Your task to perform on an android device: Is it going to rain tomorrow? Image 0: 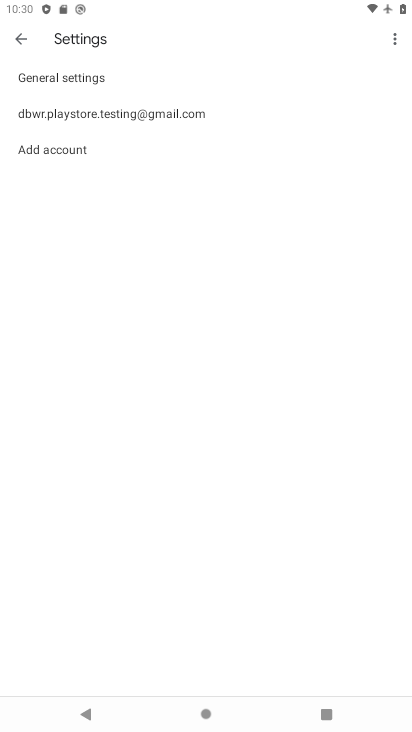
Step 0: press home button
Your task to perform on an android device: Is it going to rain tomorrow? Image 1: 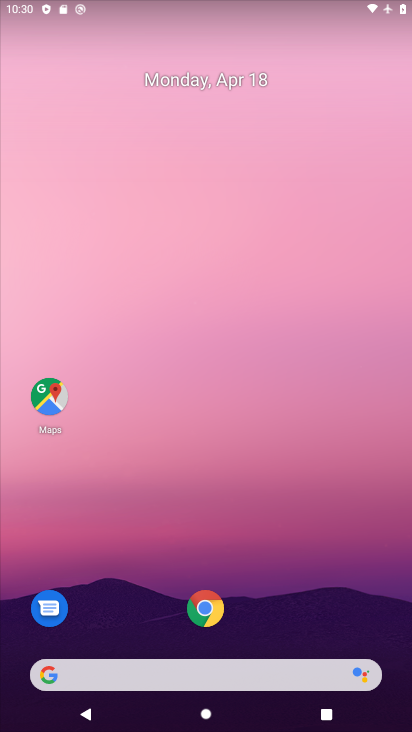
Step 1: click (208, 598)
Your task to perform on an android device: Is it going to rain tomorrow? Image 2: 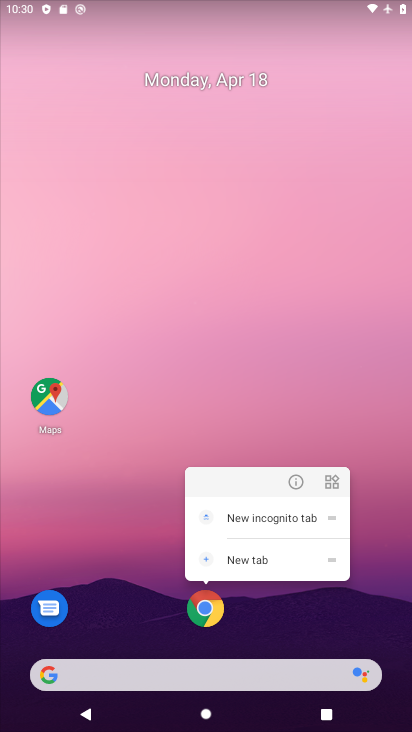
Step 2: click (215, 618)
Your task to perform on an android device: Is it going to rain tomorrow? Image 3: 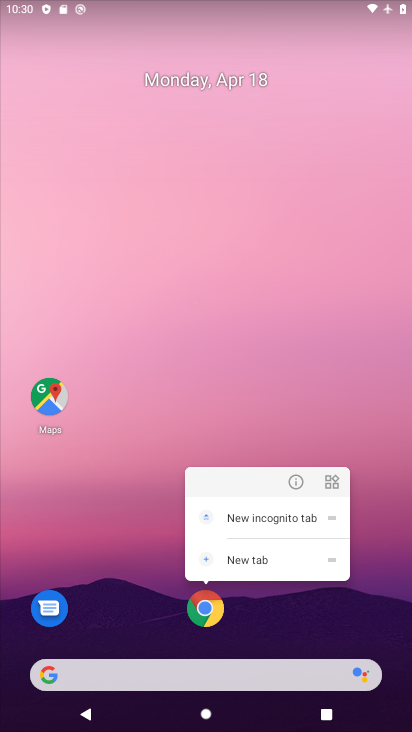
Step 3: click (194, 614)
Your task to perform on an android device: Is it going to rain tomorrow? Image 4: 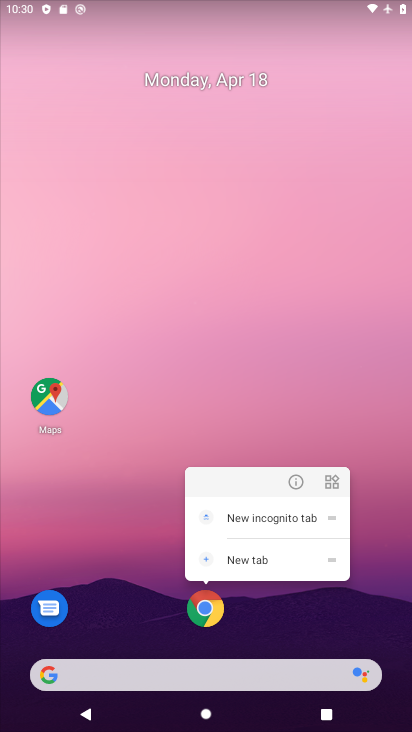
Step 4: click (204, 622)
Your task to perform on an android device: Is it going to rain tomorrow? Image 5: 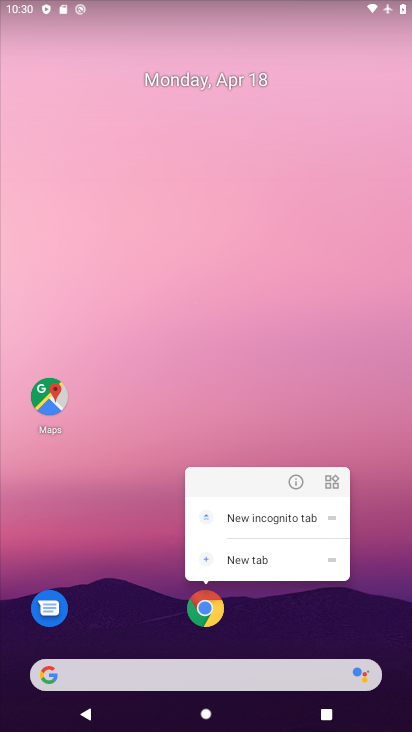
Step 5: click (204, 622)
Your task to perform on an android device: Is it going to rain tomorrow? Image 6: 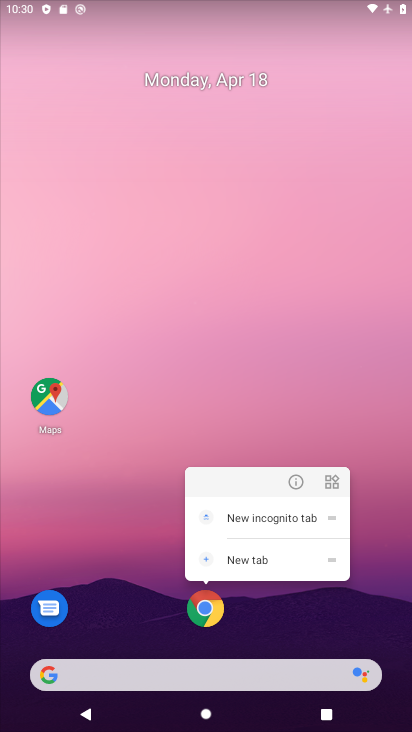
Step 6: click (218, 617)
Your task to perform on an android device: Is it going to rain tomorrow? Image 7: 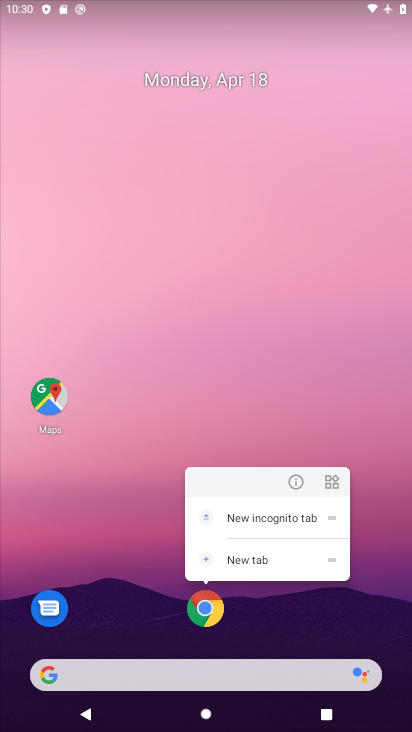
Step 7: click (210, 617)
Your task to perform on an android device: Is it going to rain tomorrow? Image 8: 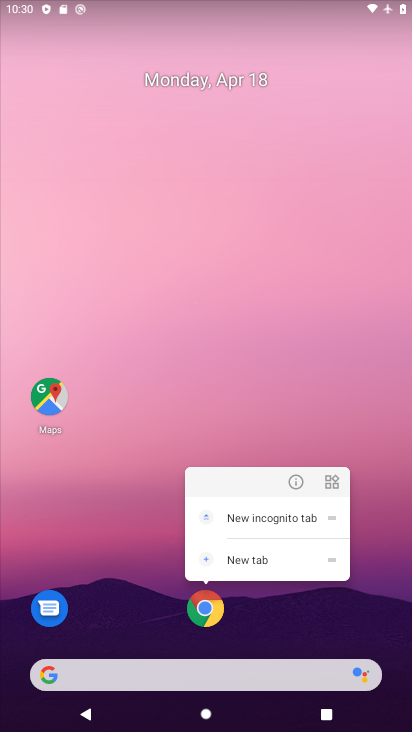
Step 8: click (210, 617)
Your task to perform on an android device: Is it going to rain tomorrow? Image 9: 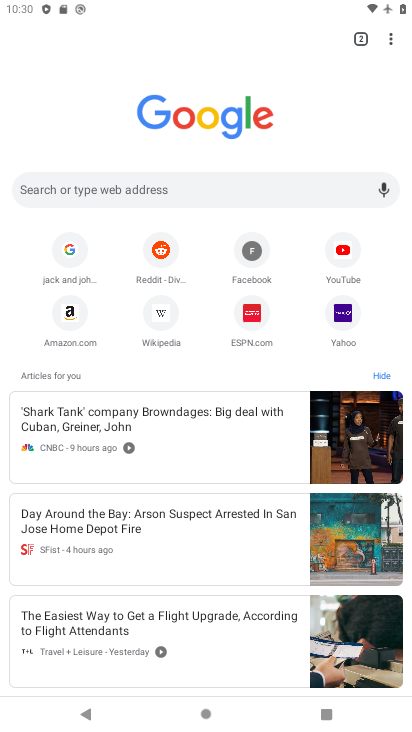
Step 9: click (75, 191)
Your task to perform on an android device: Is it going to rain tomorrow? Image 10: 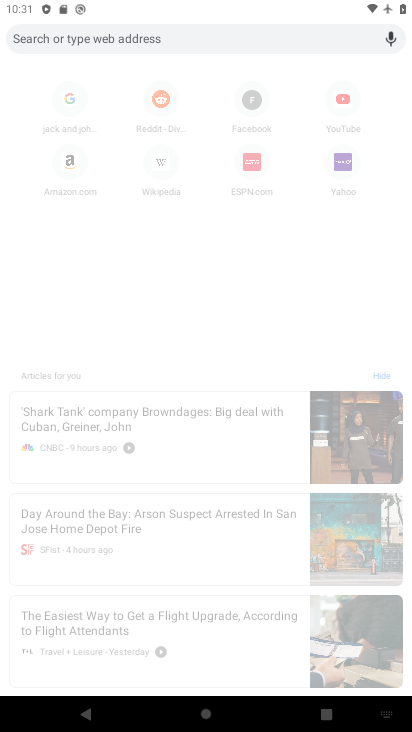
Step 10: type "is it going to rain tomorrow"
Your task to perform on an android device: Is it going to rain tomorrow? Image 11: 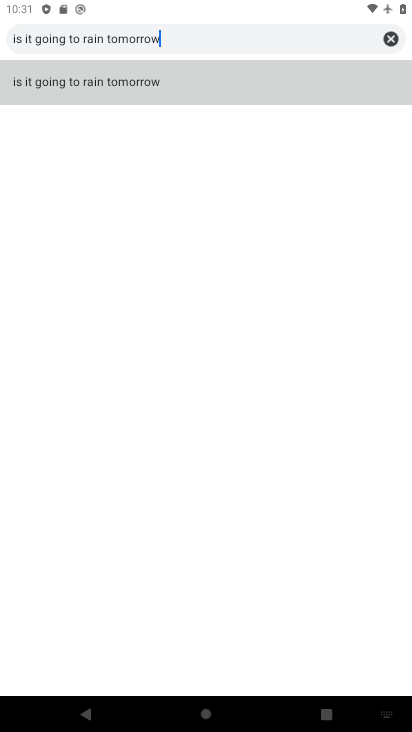
Step 11: click (126, 82)
Your task to perform on an android device: Is it going to rain tomorrow? Image 12: 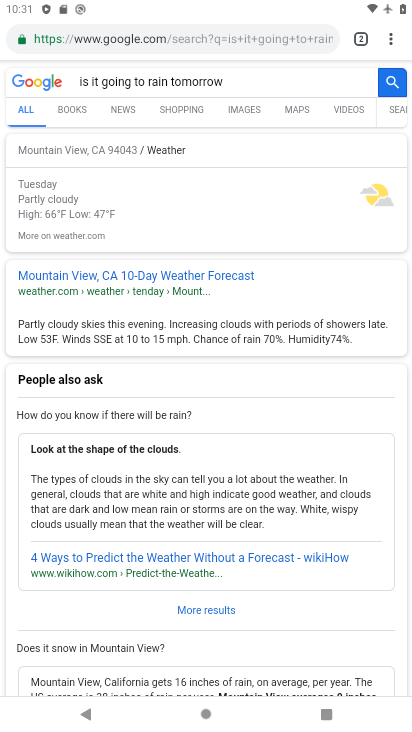
Step 12: click (124, 210)
Your task to perform on an android device: Is it going to rain tomorrow? Image 13: 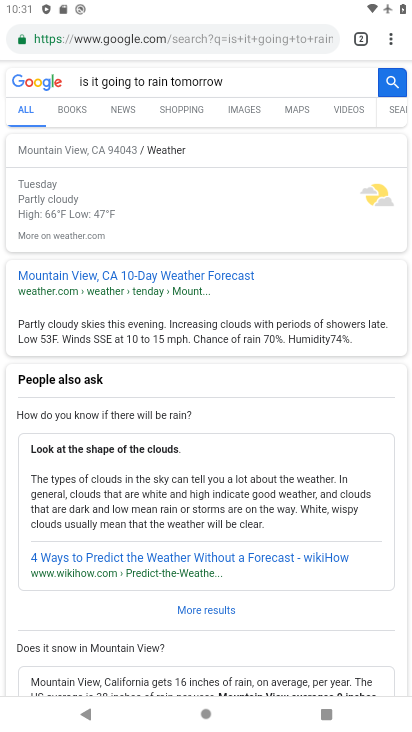
Step 13: click (84, 273)
Your task to perform on an android device: Is it going to rain tomorrow? Image 14: 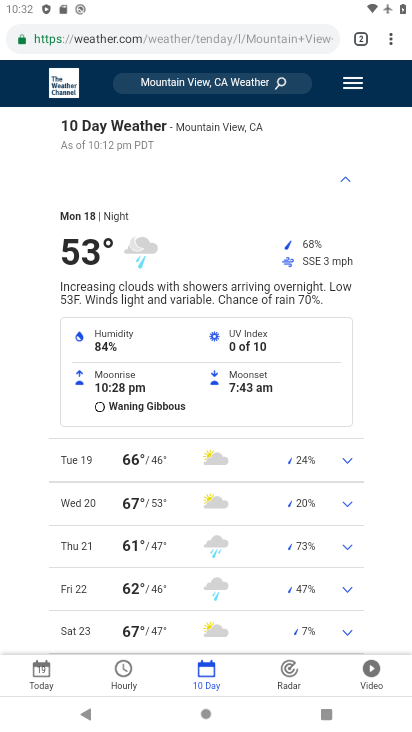
Step 14: task complete